Your task to perform on an android device: Open the phone app and click the voicemail tab. Image 0: 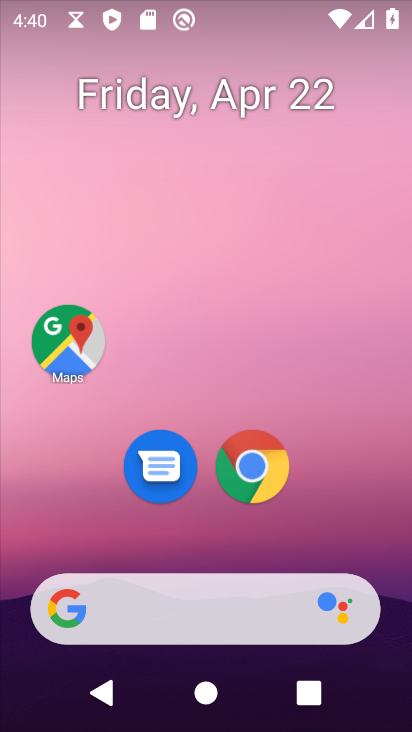
Step 0: drag from (395, 571) to (317, 151)
Your task to perform on an android device: Open the phone app and click the voicemail tab. Image 1: 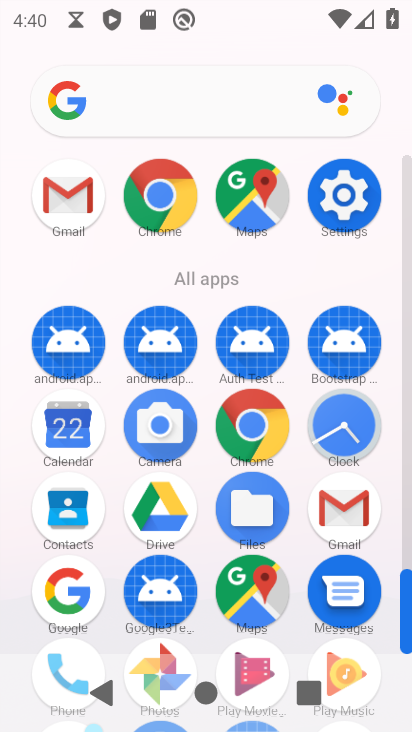
Step 1: click (74, 648)
Your task to perform on an android device: Open the phone app and click the voicemail tab. Image 2: 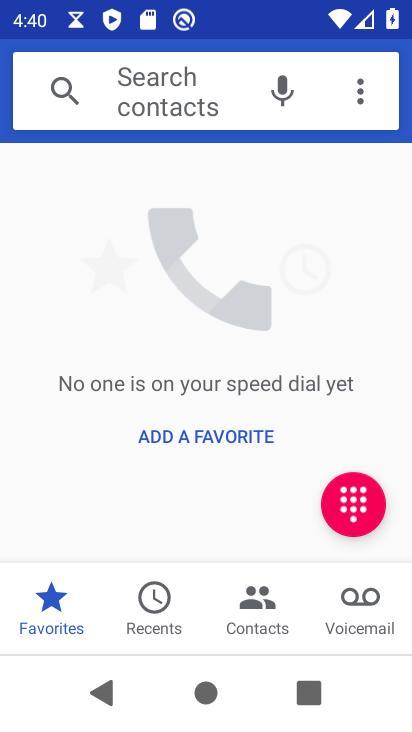
Step 2: click (376, 619)
Your task to perform on an android device: Open the phone app and click the voicemail tab. Image 3: 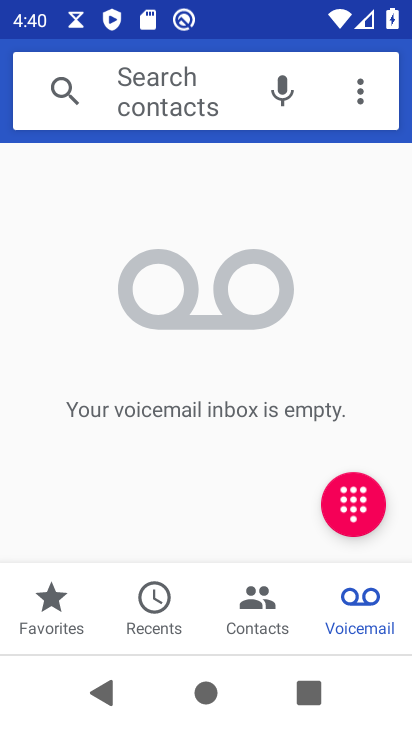
Step 3: task complete